Your task to perform on an android device: change keyboard looks Image 0: 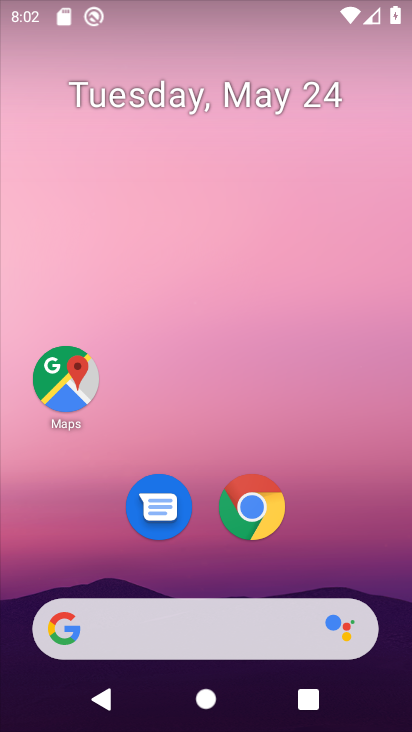
Step 0: drag from (201, 574) to (239, 144)
Your task to perform on an android device: change keyboard looks Image 1: 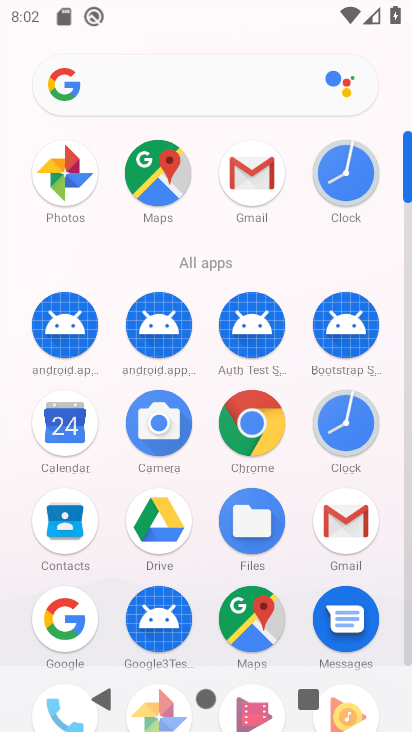
Step 1: drag from (202, 653) to (216, 181)
Your task to perform on an android device: change keyboard looks Image 2: 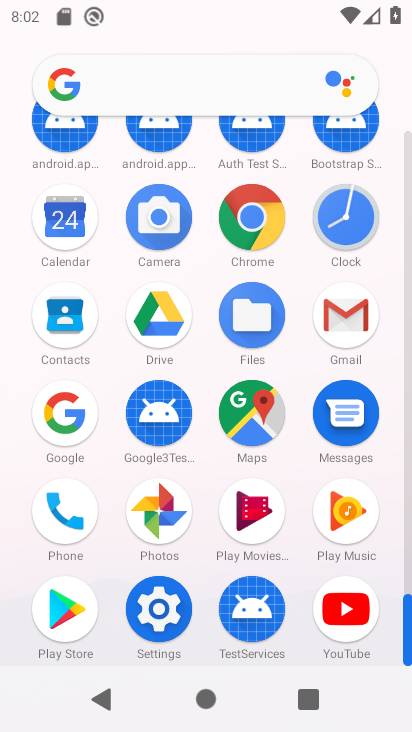
Step 2: click (157, 619)
Your task to perform on an android device: change keyboard looks Image 3: 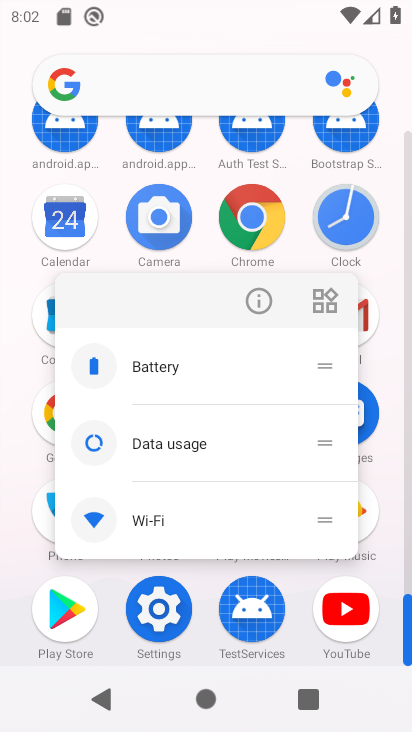
Step 3: click (273, 282)
Your task to perform on an android device: change keyboard looks Image 4: 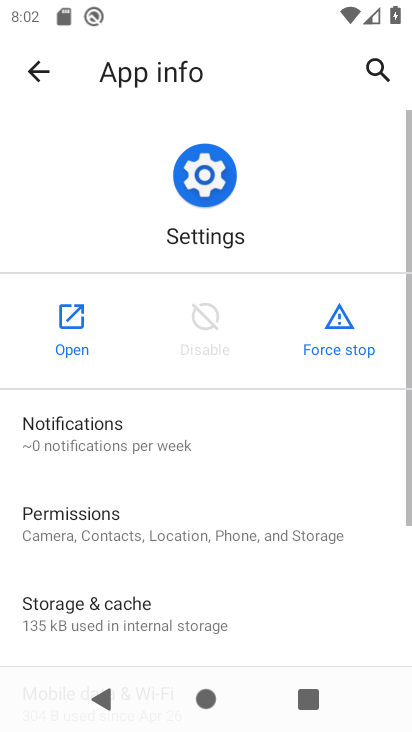
Step 4: click (68, 353)
Your task to perform on an android device: change keyboard looks Image 5: 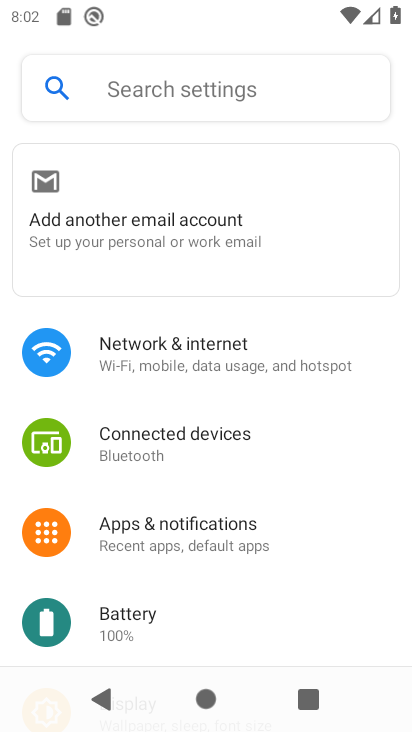
Step 5: drag from (172, 611) to (241, 188)
Your task to perform on an android device: change keyboard looks Image 6: 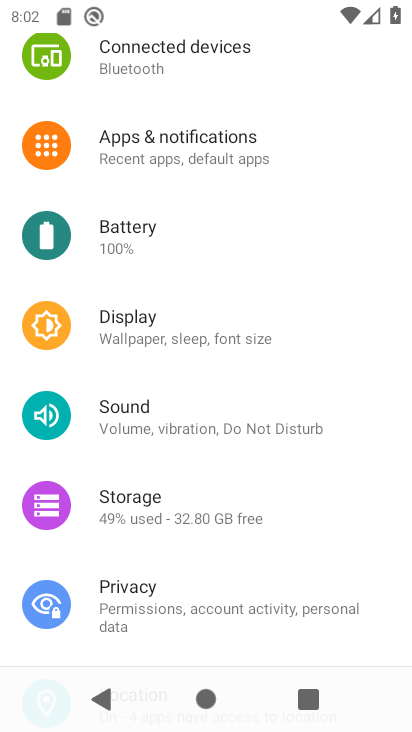
Step 6: drag from (180, 602) to (270, 114)
Your task to perform on an android device: change keyboard looks Image 7: 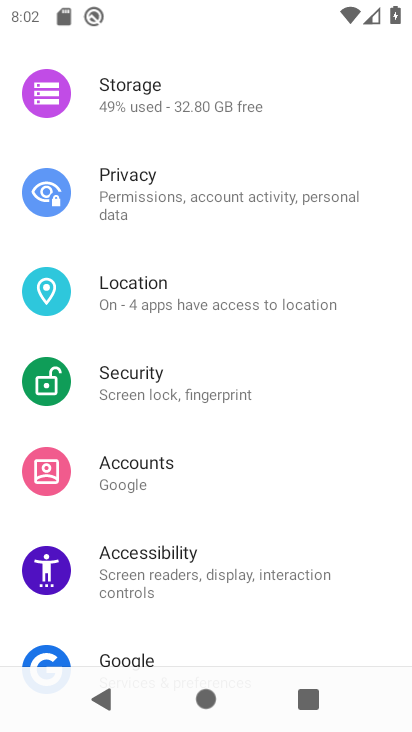
Step 7: drag from (155, 564) to (253, 189)
Your task to perform on an android device: change keyboard looks Image 8: 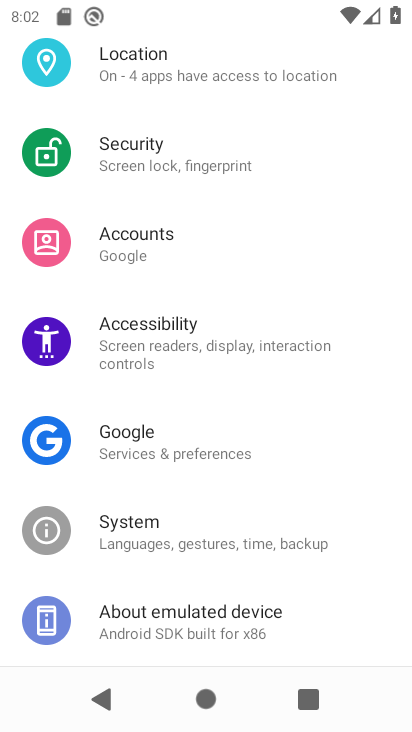
Step 8: click (192, 541)
Your task to perform on an android device: change keyboard looks Image 9: 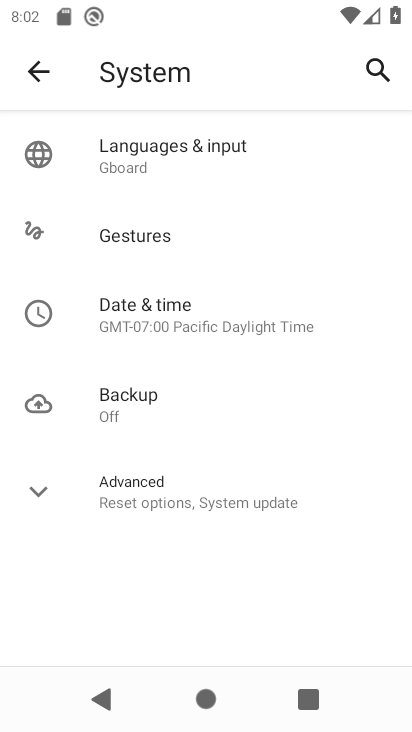
Step 9: click (167, 162)
Your task to perform on an android device: change keyboard looks Image 10: 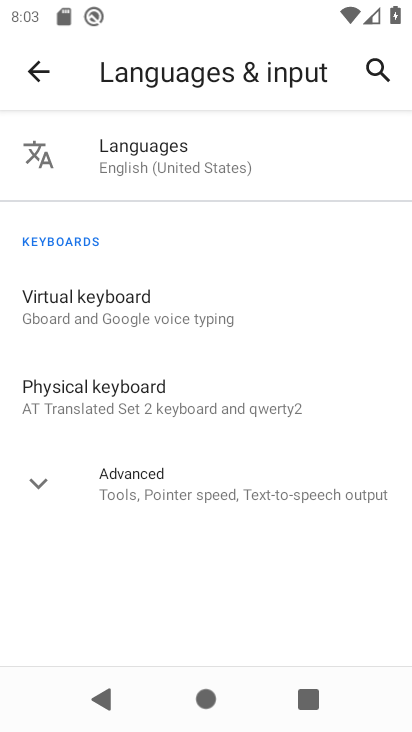
Step 10: click (207, 302)
Your task to perform on an android device: change keyboard looks Image 11: 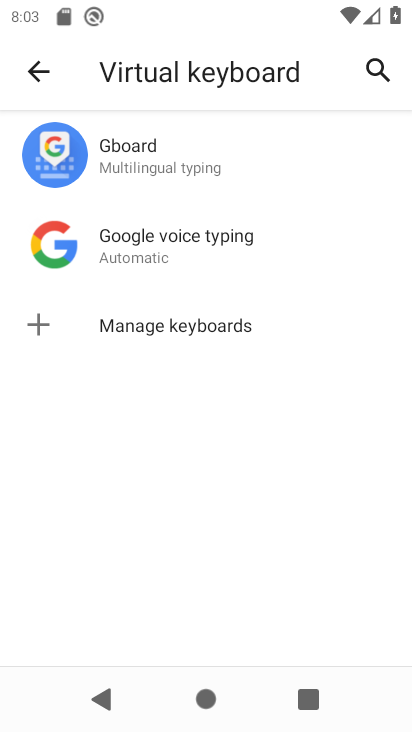
Step 11: click (189, 153)
Your task to perform on an android device: change keyboard looks Image 12: 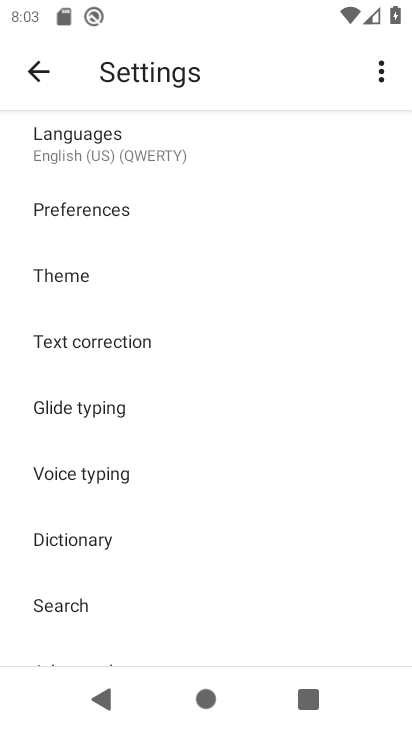
Step 12: click (96, 285)
Your task to perform on an android device: change keyboard looks Image 13: 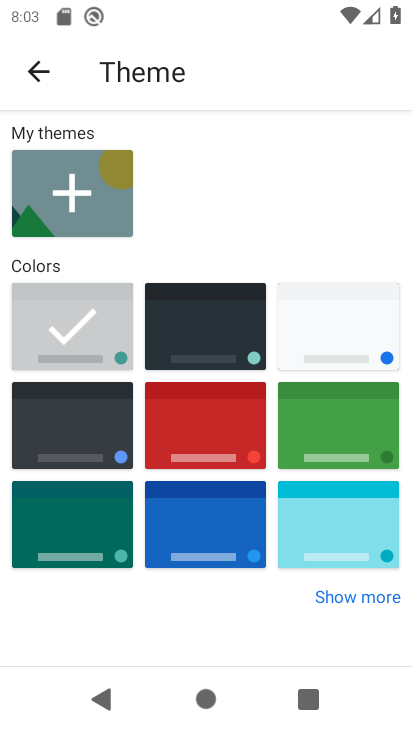
Step 13: click (218, 326)
Your task to perform on an android device: change keyboard looks Image 14: 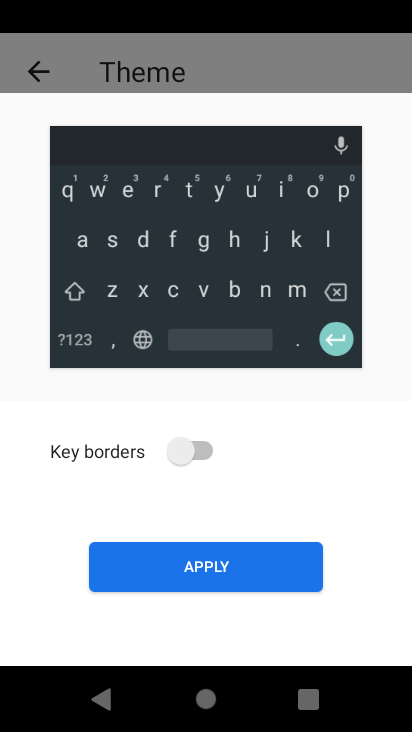
Step 14: click (201, 572)
Your task to perform on an android device: change keyboard looks Image 15: 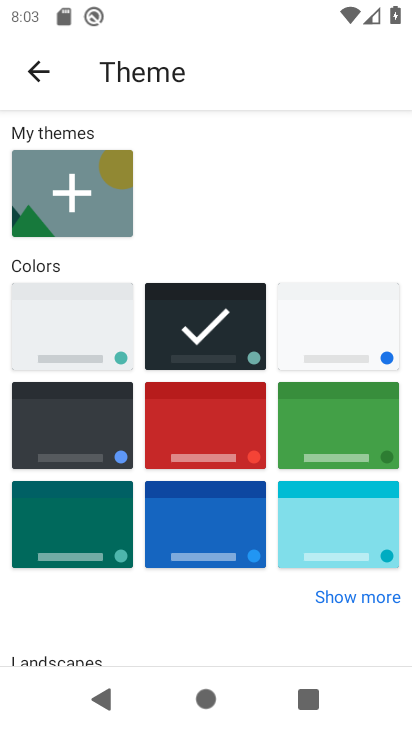
Step 15: task complete